Your task to perform on an android device: Toggle the flashlight Image 0: 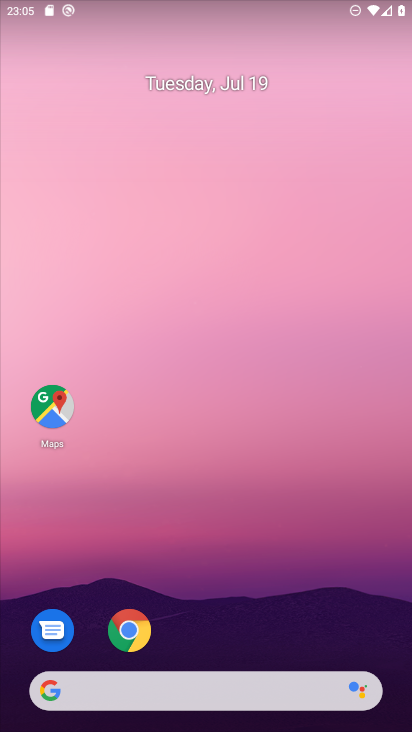
Step 0: drag from (216, 636) to (191, 107)
Your task to perform on an android device: Toggle the flashlight Image 1: 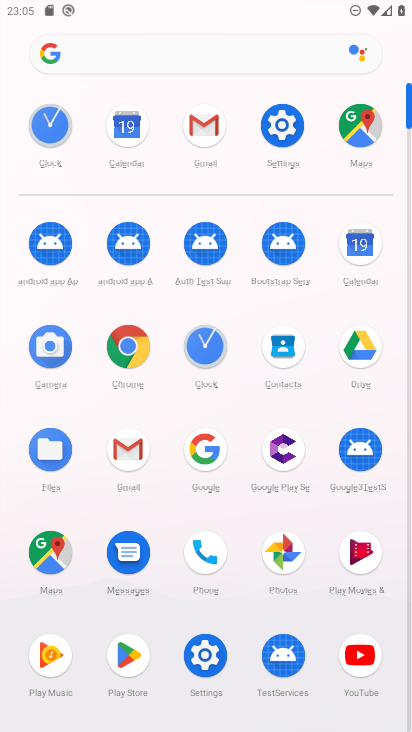
Step 1: click (262, 123)
Your task to perform on an android device: Toggle the flashlight Image 2: 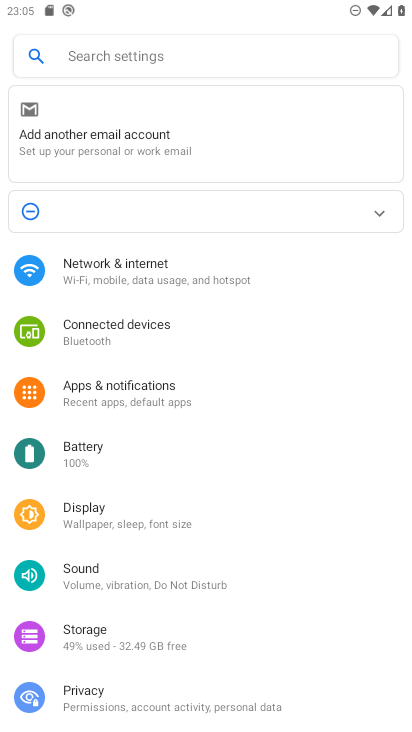
Step 2: task complete